Your task to perform on an android device: empty trash in the gmail app Image 0: 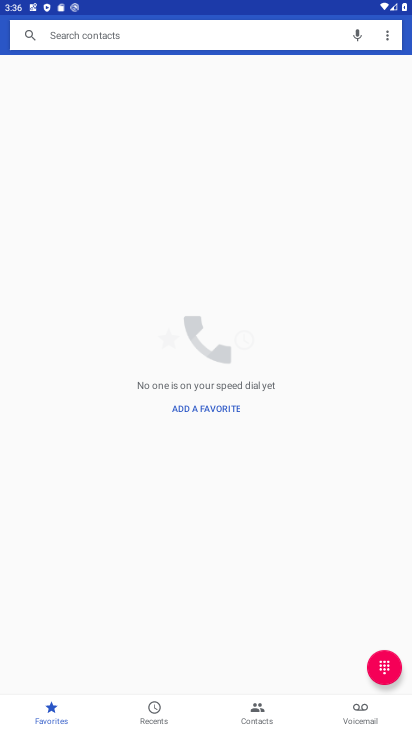
Step 0: press home button
Your task to perform on an android device: empty trash in the gmail app Image 1: 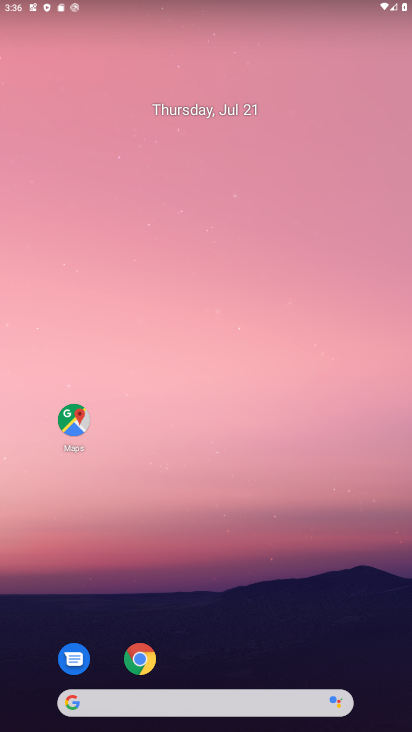
Step 1: drag from (255, 582) to (205, 114)
Your task to perform on an android device: empty trash in the gmail app Image 2: 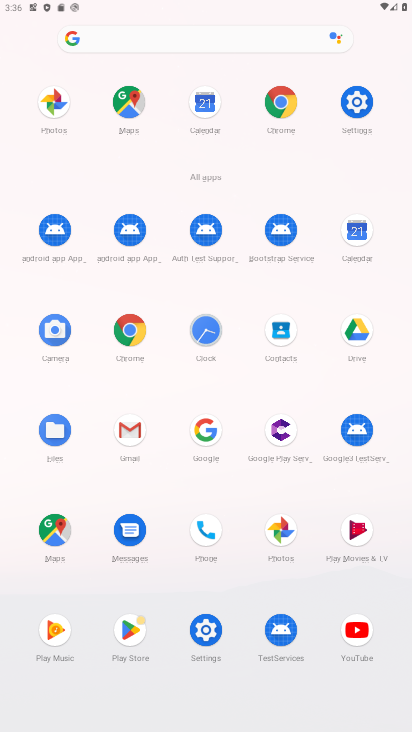
Step 2: click (125, 439)
Your task to perform on an android device: empty trash in the gmail app Image 3: 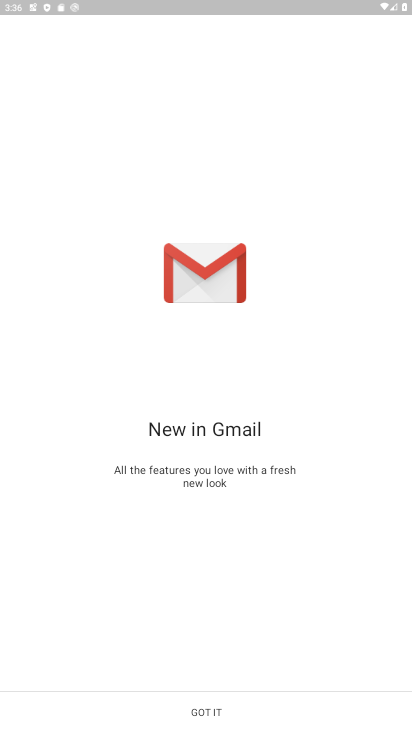
Step 3: click (209, 714)
Your task to perform on an android device: empty trash in the gmail app Image 4: 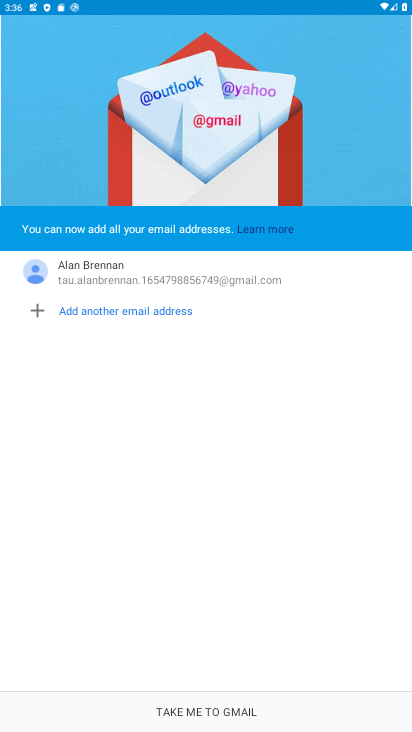
Step 4: click (209, 714)
Your task to perform on an android device: empty trash in the gmail app Image 5: 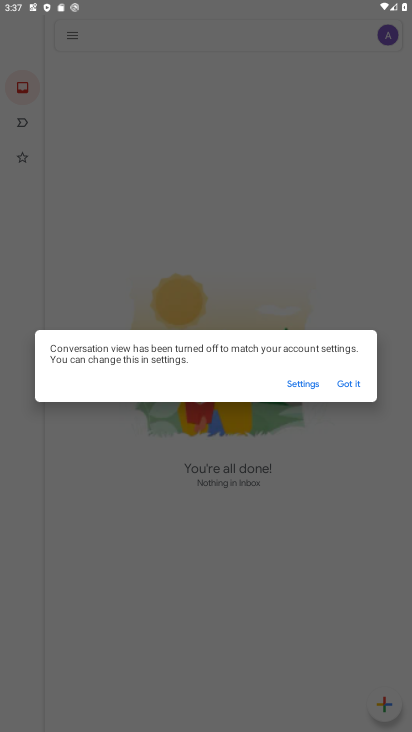
Step 5: click (345, 379)
Your task to perform on an android device: empty trash in the gmail app Image 6: 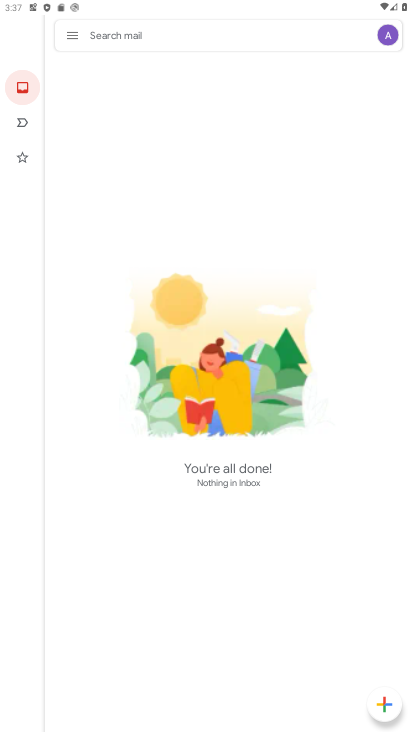
Step 6: click (65, 32)
Your task to perform on an android device: empty trash in the gmail app Image 7: 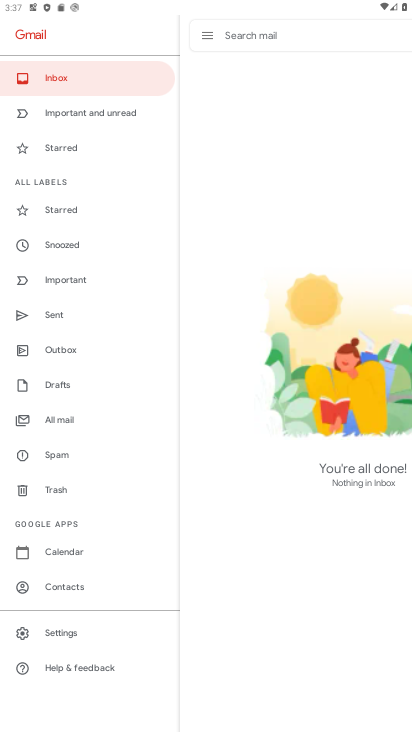
Step 7: click (62, 488)
Your task to perform on an android device: empty trash in the gmail app Image 8: 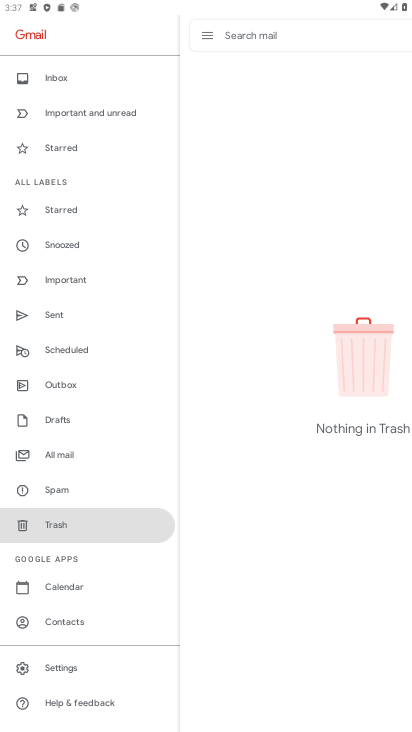
Step 8: task complete